Your task to perform on an android device: open the mobile data screen to see how much data has been used Image 0: 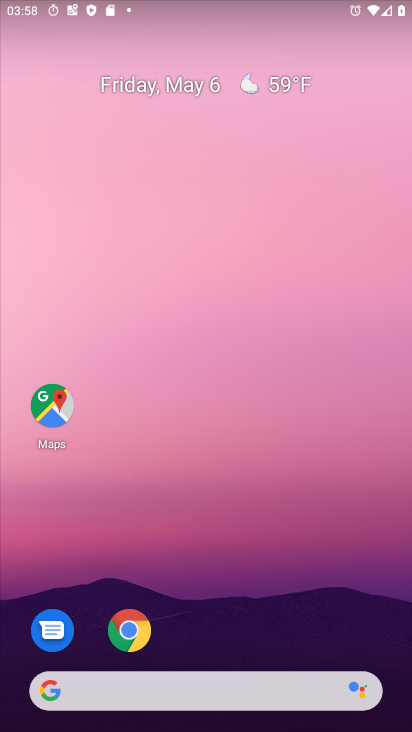
Step 0: drag from (231, 638) to (220, 212)
Your task to perform on an android device: open the mobile data screen to see how much data has been used Image 1: 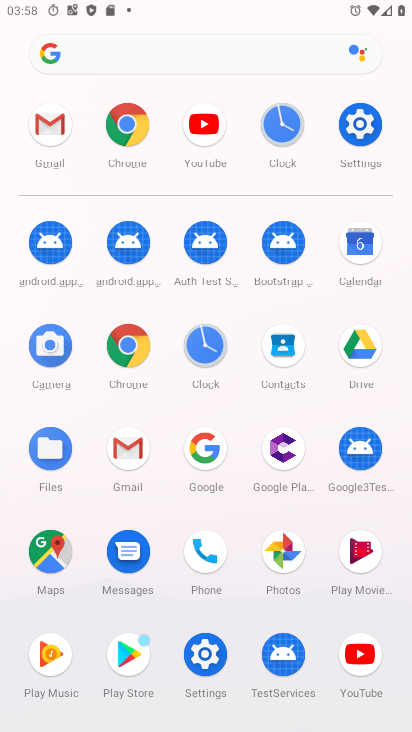
Step 1: click (372, 126)
Your task to perform on an android device: open the mobile data screen to see how much data has been used Image 2: 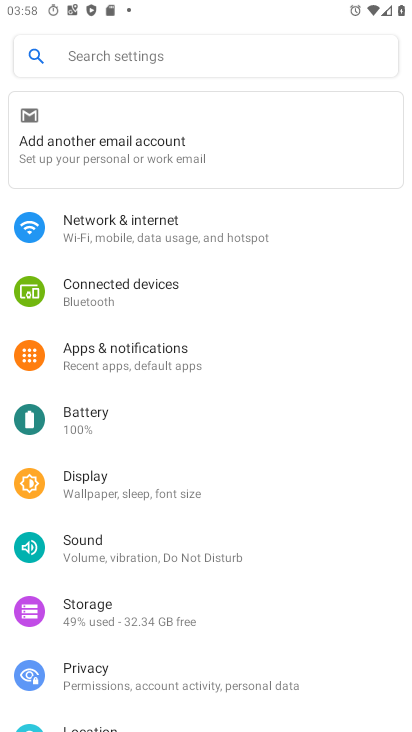
Step 2: click (157, 238)
Your task to perform on an android device: open the mobile data screen to see how much data has been used Image 3: 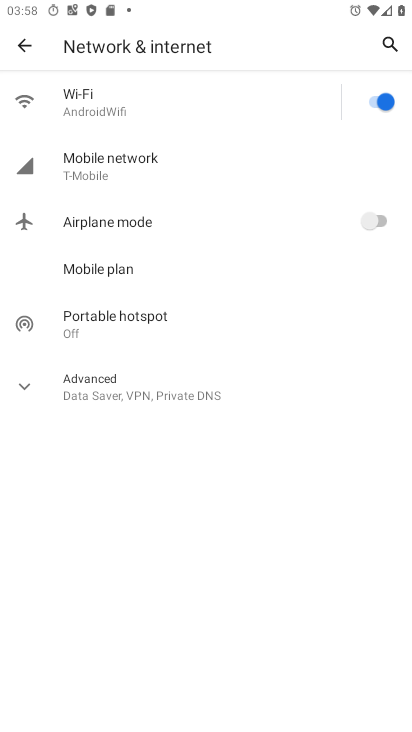
Step 3: click (134, 175)
Your task to perform on an android device: open the mobile data screen to see how much data has been used Image 4: 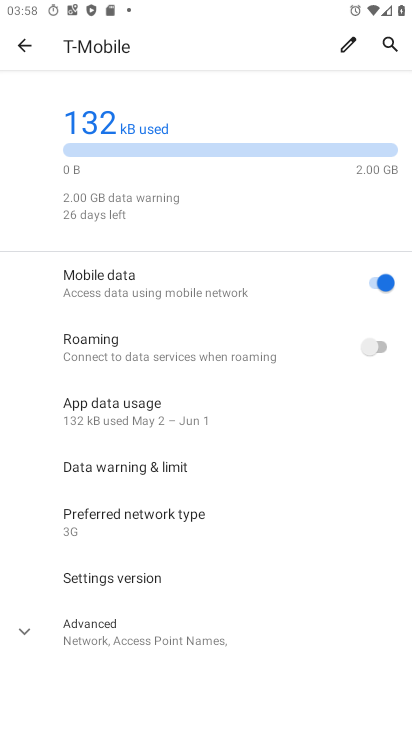
Step 4: click (142, 408)
Your task to perform on an android device: open the mobile data screen to see how much data has been used Image 5: 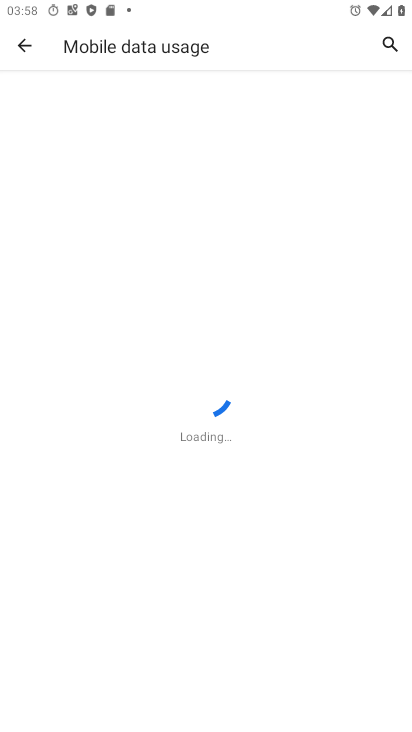
Step 5: task complete